Your task to perform on an android device: turn vacation reply on in the gmail app Image 0: 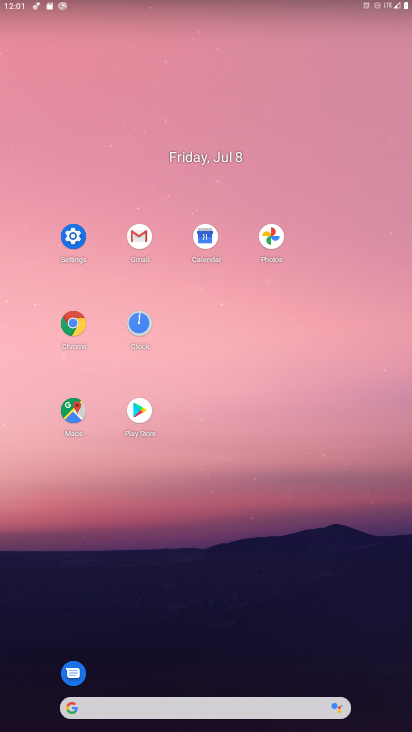
Step 0: click (141, 235)
Your task to perform on an android device: turn vacation reply on in the gmail app Image 1: 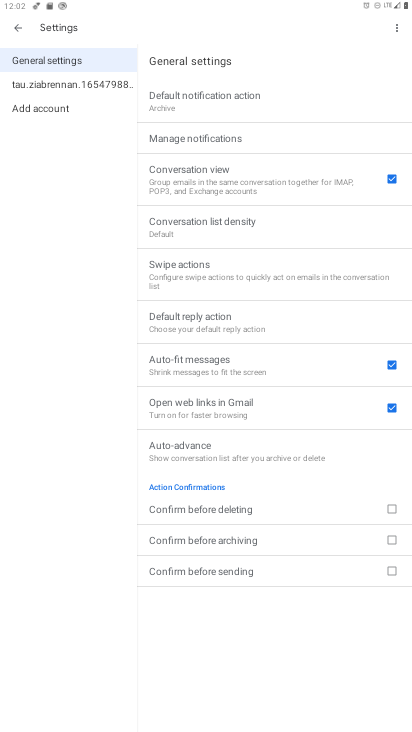
Step 1: click (47, 88)
Your task to perform on an android device: turn vacation reply on in the gmail app Image 2: 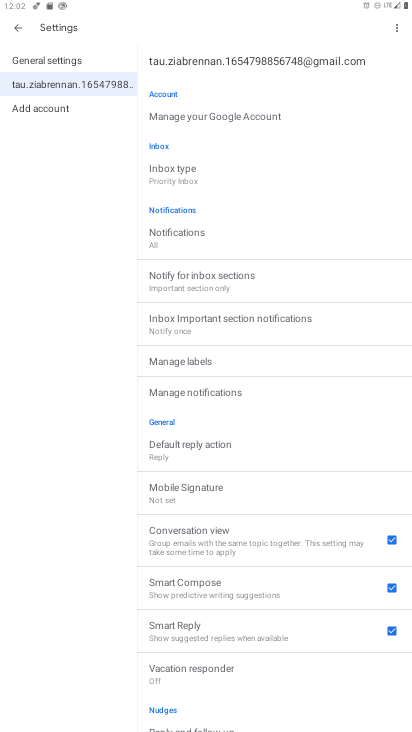
Step 2: click (286, 672)
Your task to perform on an android device: turn vacation reply on in the gmail app Image 3: 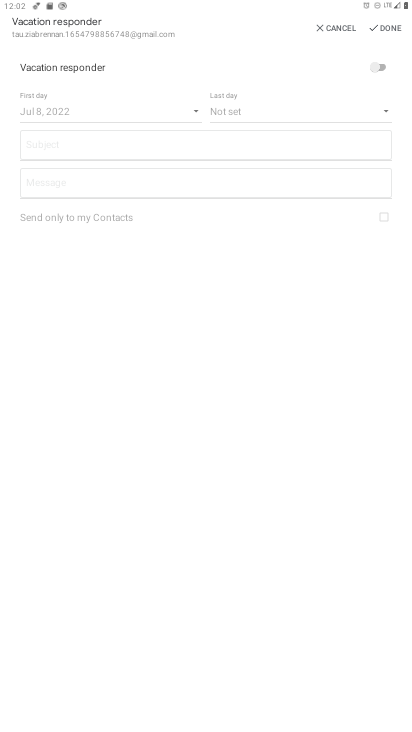
Step 3: click (375, 73)
Your task to perform on an android device: turn vacation reply on in the gmail app Image 4: 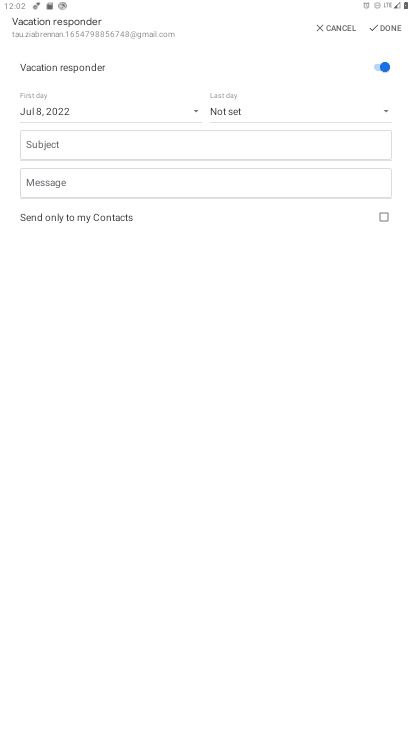
Step 4: task complete